Your task to perform on an android device: all mails in gmail Image 0: 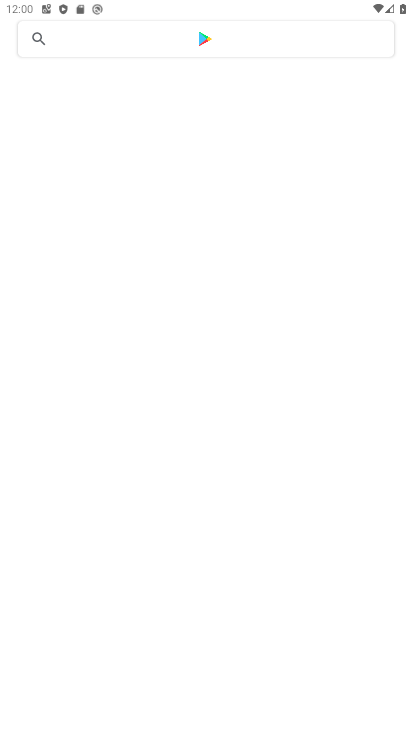
Step 0: press back button
Your task to perform on an android device: all mails in gmail Image 1: 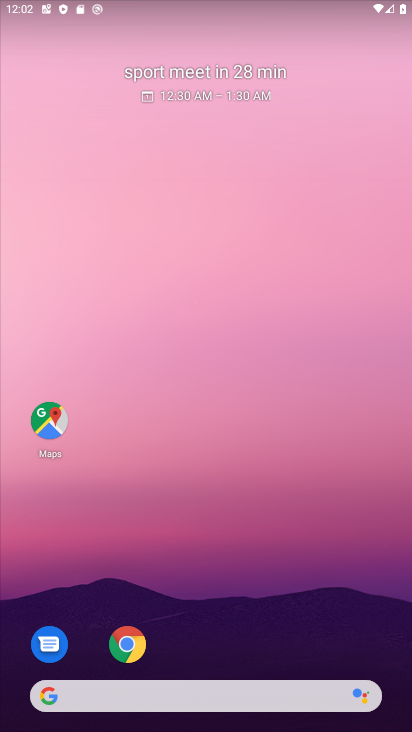
Step 1: drag from (261, 503) to (291, 93)
Your task to perform on an android device: all mails in gmail Image 2: 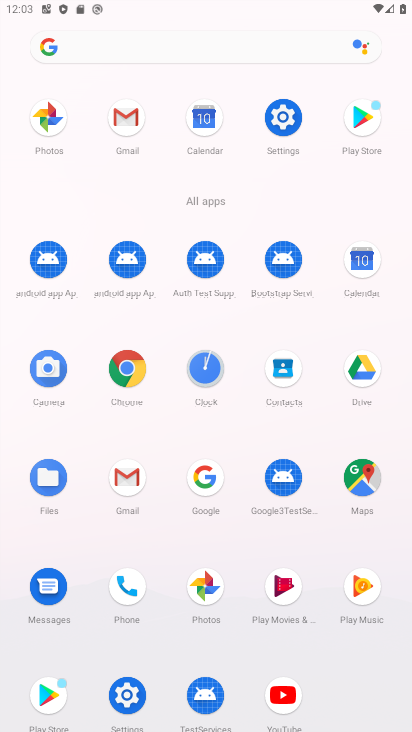
Step 2: click (125, 107)
Your task to perform on an android device: all mails in gmail Image 3: 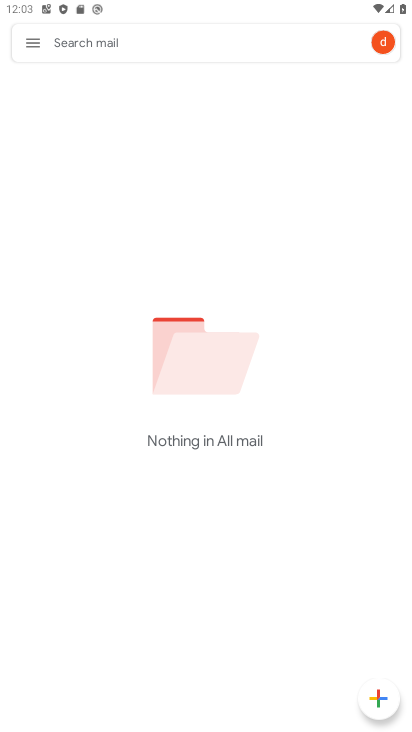
Step 3: task complete